Your task to perform on an android device: toggle pop-ups in chrome Image 0: 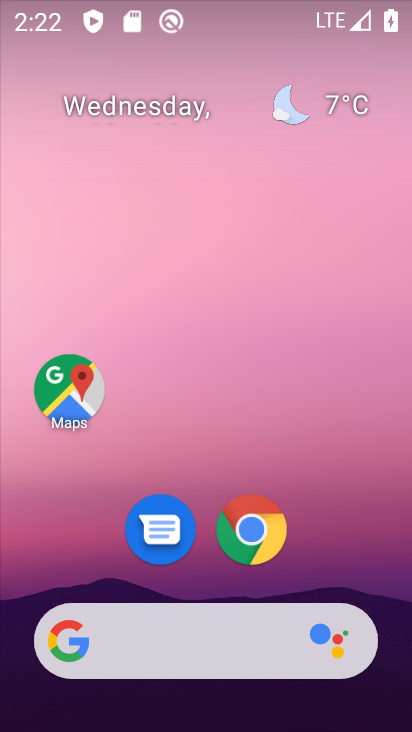
Step 0: drag from (363, 537) to (2, 237)
Your task to perform on an android device: toggle pop-ups in chrome Image 1: 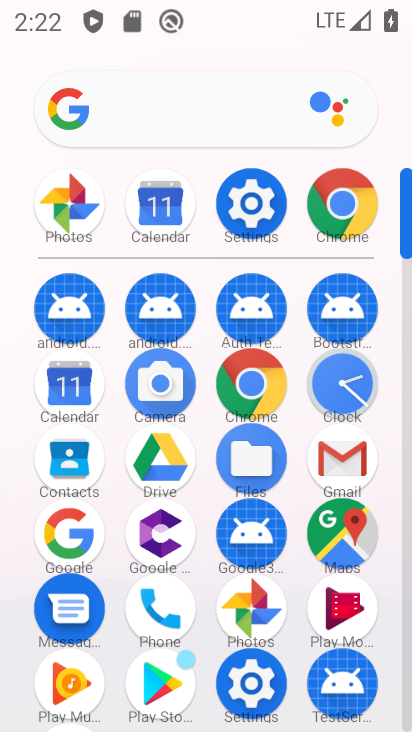
Step 1: click (336, 218)
Your task to perform on an android device: toggle pop-ups in chrome Image 2: 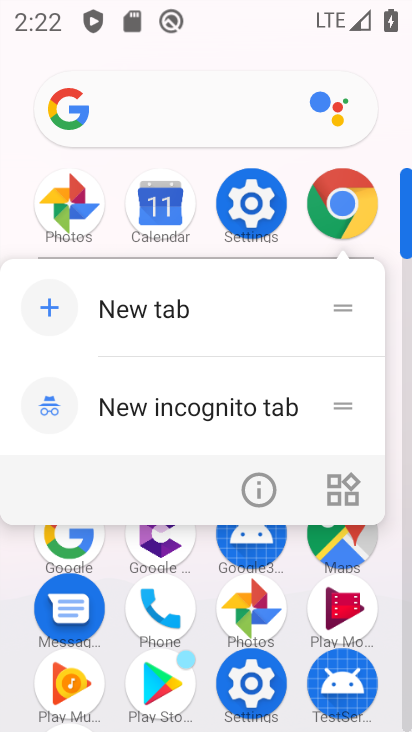
Step 2: click (336, 217)
Your task to perform on an android device: toggle pop-ups in chrome Image 3: 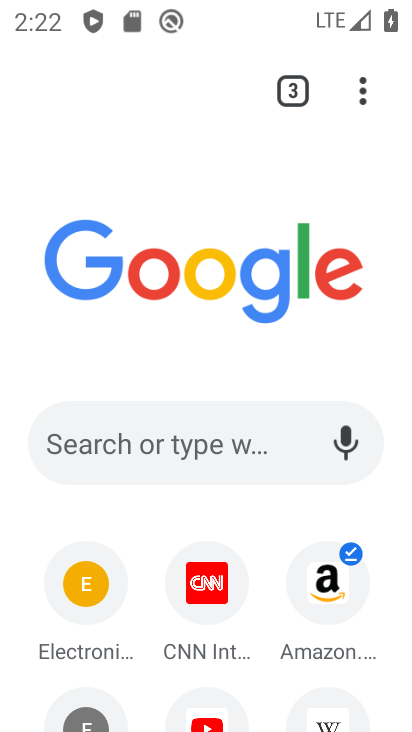
Step 3: drag from (360, 95) to (175, 577)
Your task to perform on an android device: toggle pop-ups in chrome Image 4: 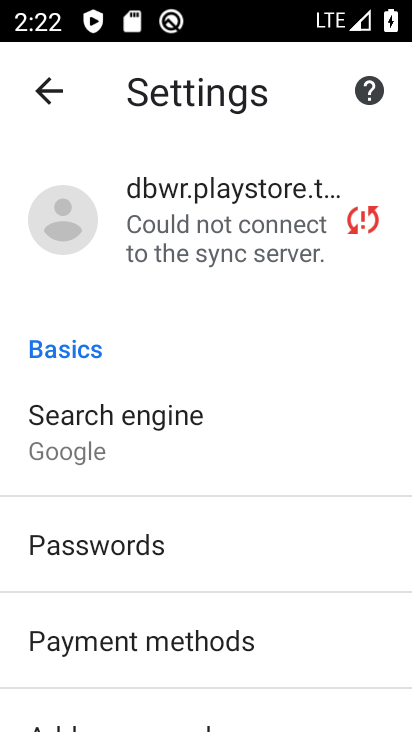
Step 4: drag from (323, 619) to (329, 250)
Your task to perform on an android device: toggle pop-ups in chrome Image 5: 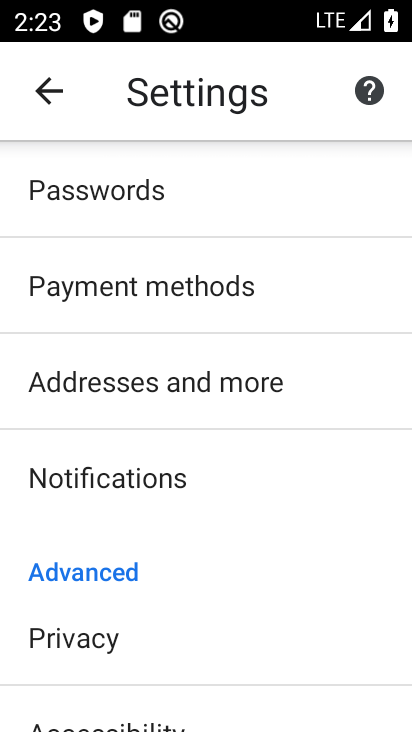
Step 5: drag from (148, 623) to (209, 292)
Your task to perform on an android device: toggle pop-ups in chrome Image 6: 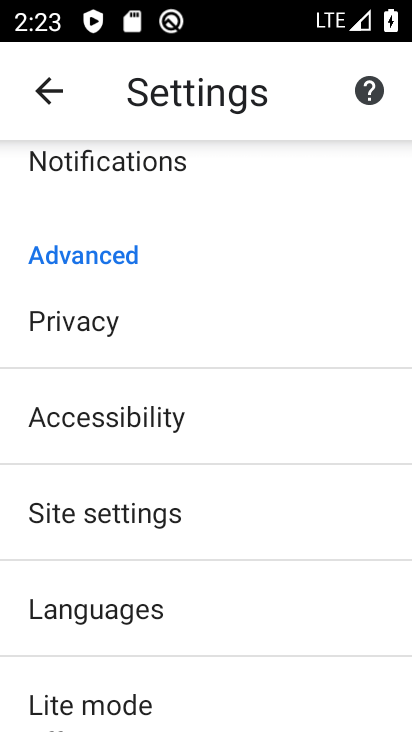
Step 6: drag from (239, 658) to (281, 284)
Your task to perform on an android device: toggle pop-ups in chrome Image 7: 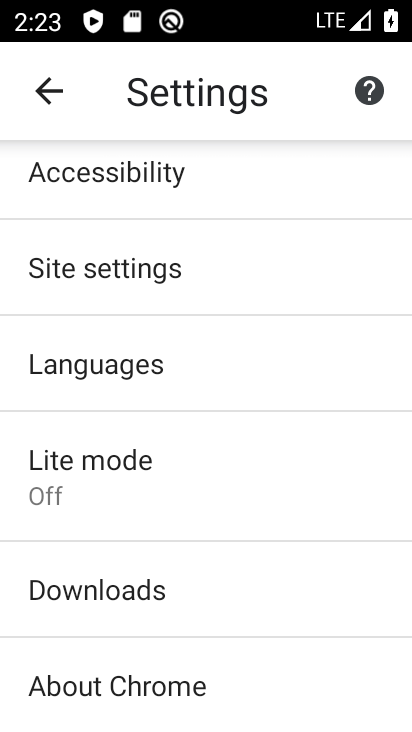
Step 7: click (105, 257)
Your task to perform on an android device: toggle pop-ups in chrome Image 8: 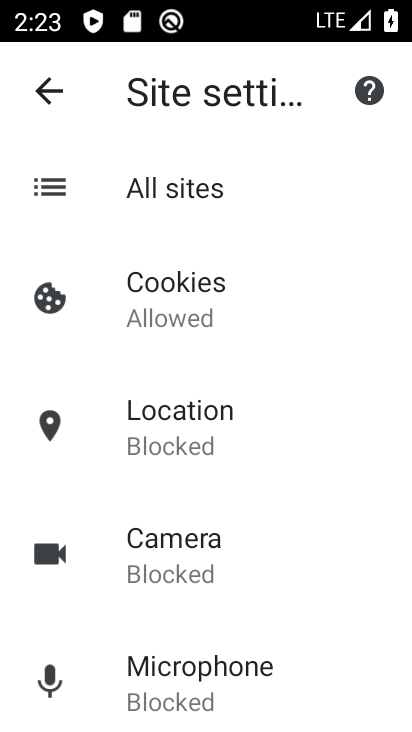
Step 8: drag from (159, 587) to (176, 321)
Your task to perform on an android device: toggle pop-ups in chrome Image 9: 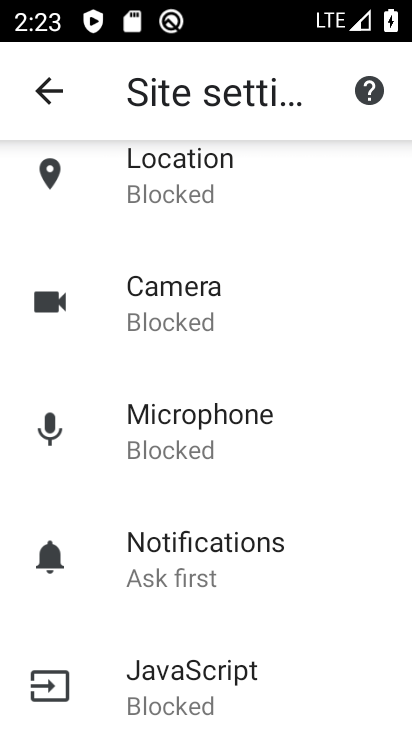
Step 9: drag from (227, 603) to (258, 275)
Your task to perform on an android device: toggle pop-ups in chrome Image 10: 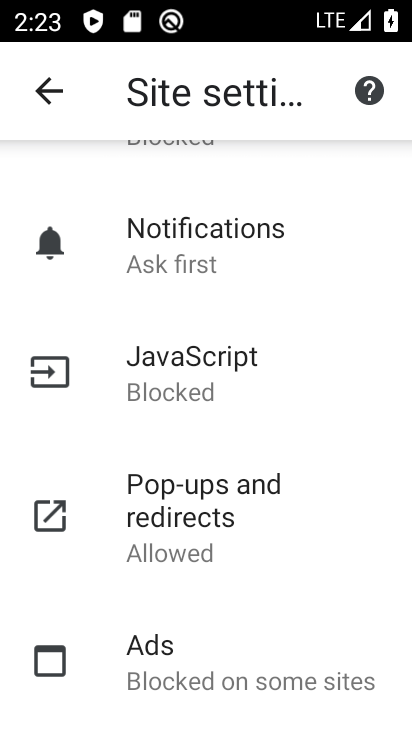
Step 10: click (208, 526)
Your task to perform on an android device: toggle pop-ups in chrome Image 11: 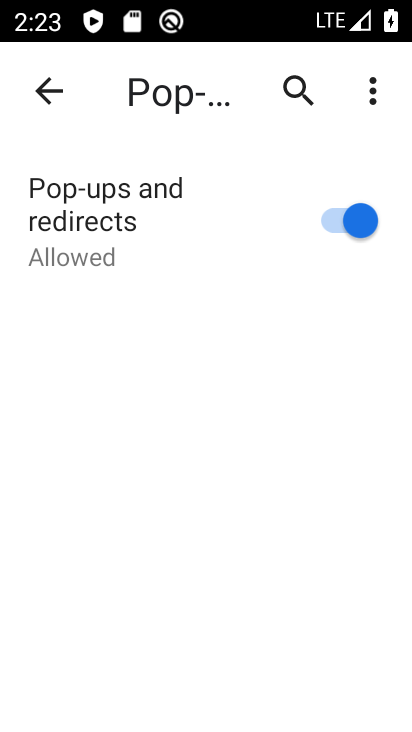
Step 11: task complete